Your task to perform on an android device: Search for logitech g pro on amazon.com, select the first entry, and add it to the cart. Image 0: 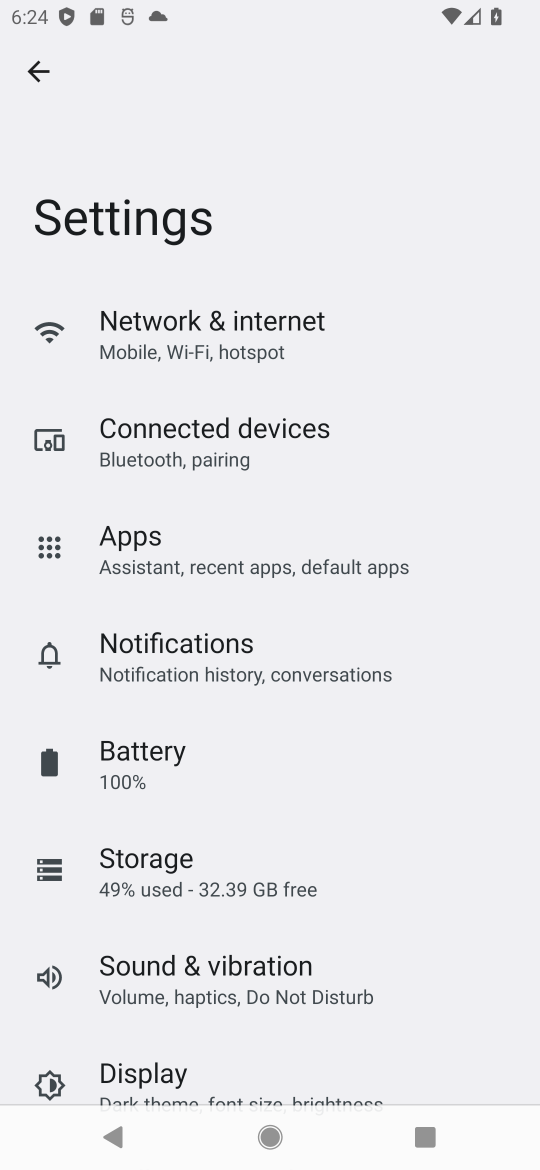
Step 0: press home button
Your task to perform on an android device: Search for logitech g pro on amazon.com, select the first entry, and add it to the cart. Image 1: 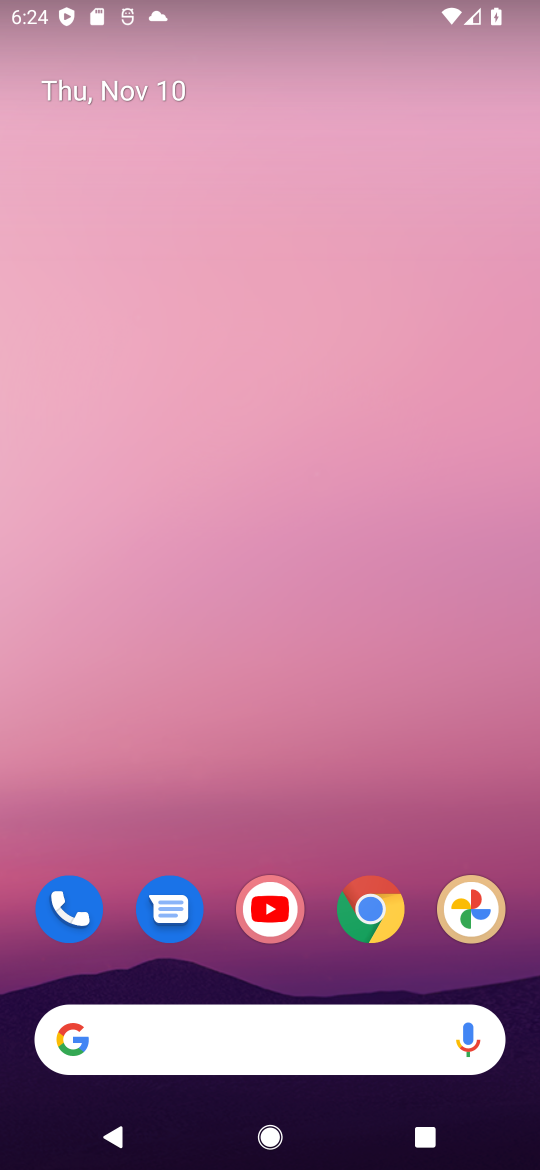
Step 1: drag from (228, 985) to (267, 297)
Your task to perform on an android device: Search for logitech g pro on amazon.com, select the first entry, and add it to the cart. Image 2: 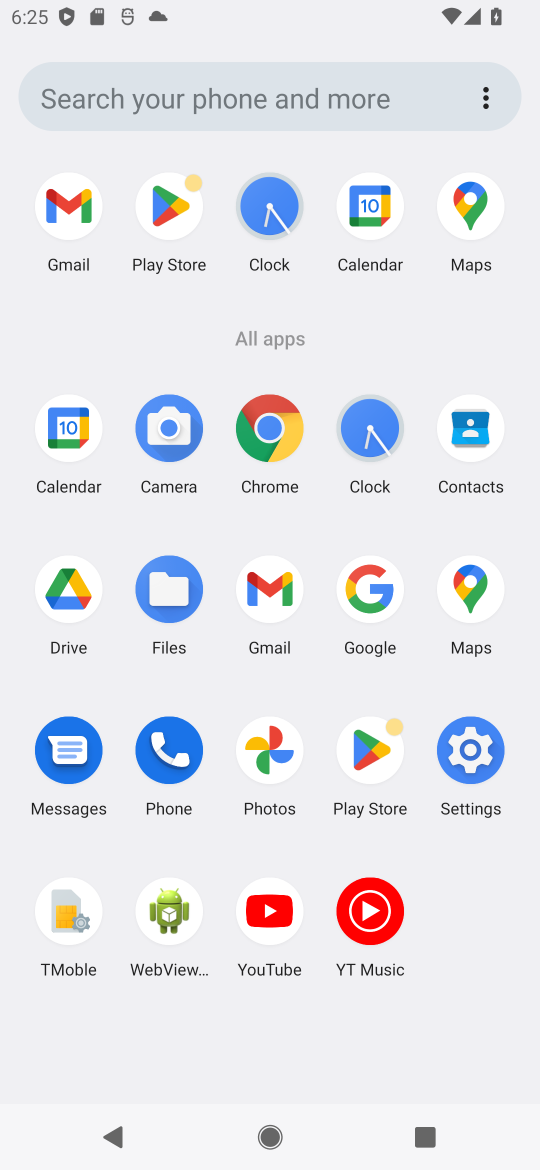
Step 2: click (370, 582)
Your task to perform on an android device: Search for logitech g pro on amazon.com, select the first entry, and add it to the cart. Image 3: 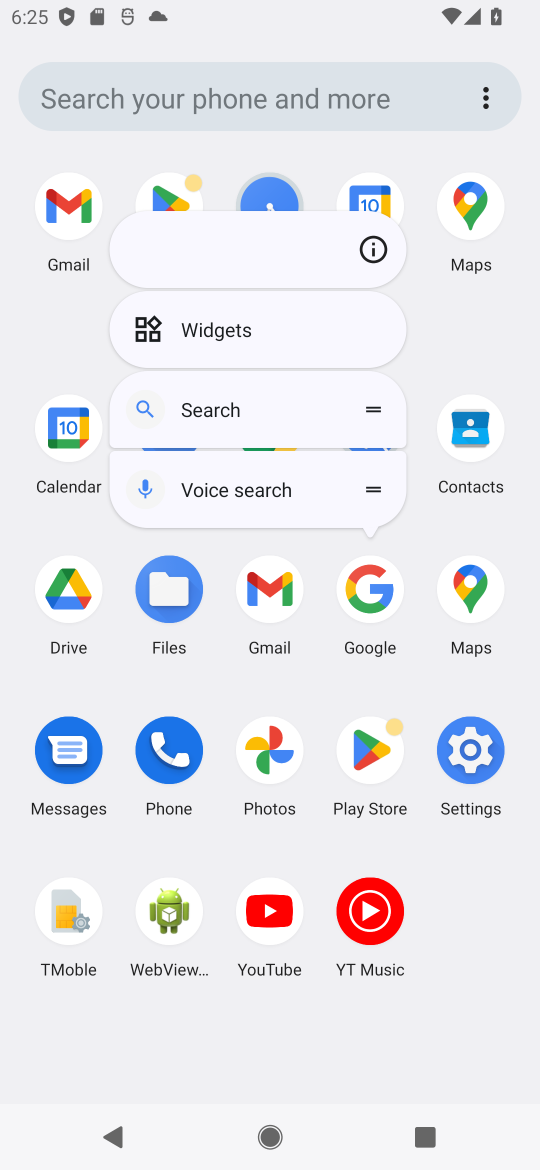
Step 3: click (370, 582)
Your task to perform on an android device: Search for logitech g pro on amazon.com, select the first entry, and add it to the cart. Image 4: 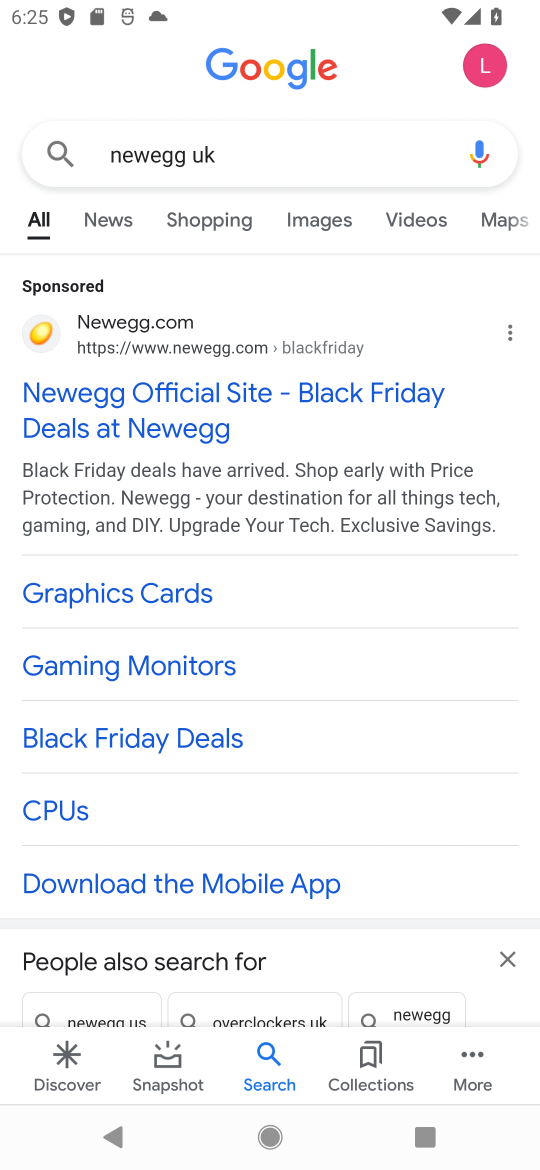
Step 4: click (47, 327)
Your task to perform on an android device: Search for logitech g pro on amazon.com, select the first entry, and add it to the cart. Image 5: 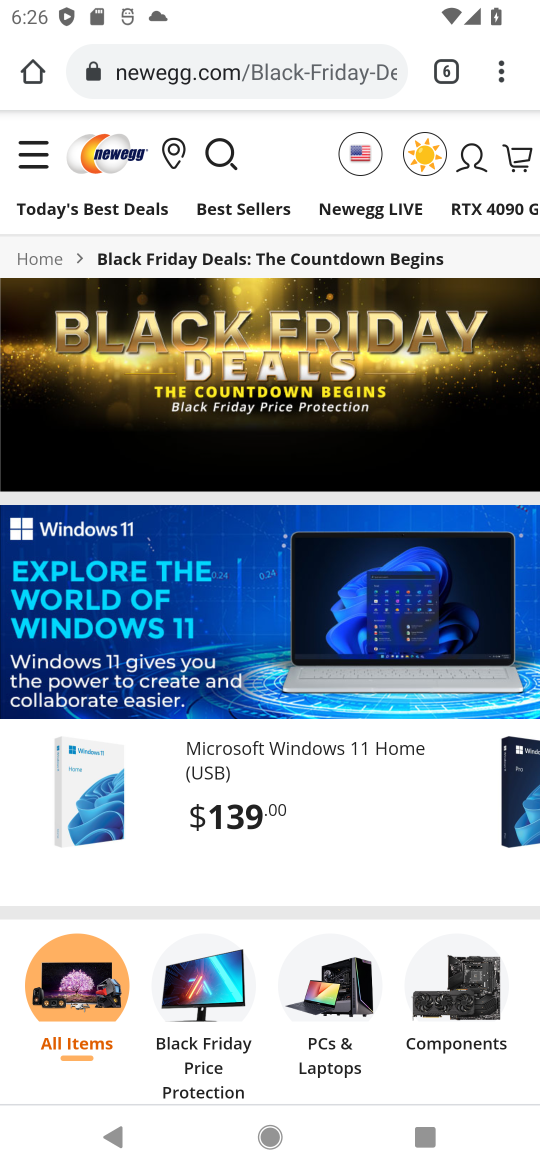
Step 5: click (224, 144)
Your task to perform on an android device: Search for logitech g pro on amazon.com, select the first entry, and add it to the cart. Image 6: 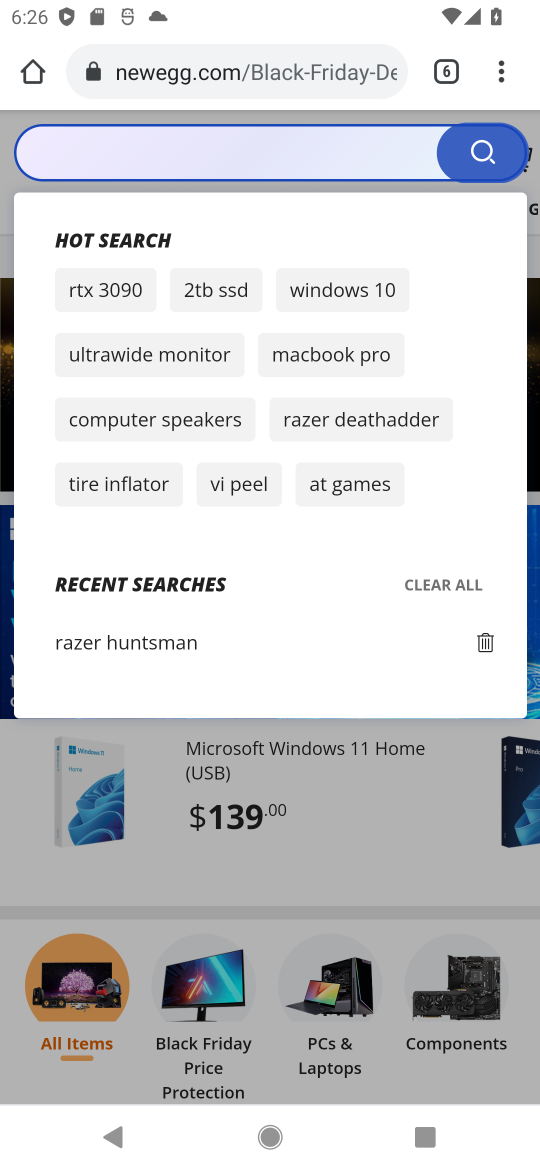
Step 6: click (370, 869)
Your task to perform on an android device: Search for logitech g pro on amazon.com, select the first entry, and add it to the cart. Image 7: 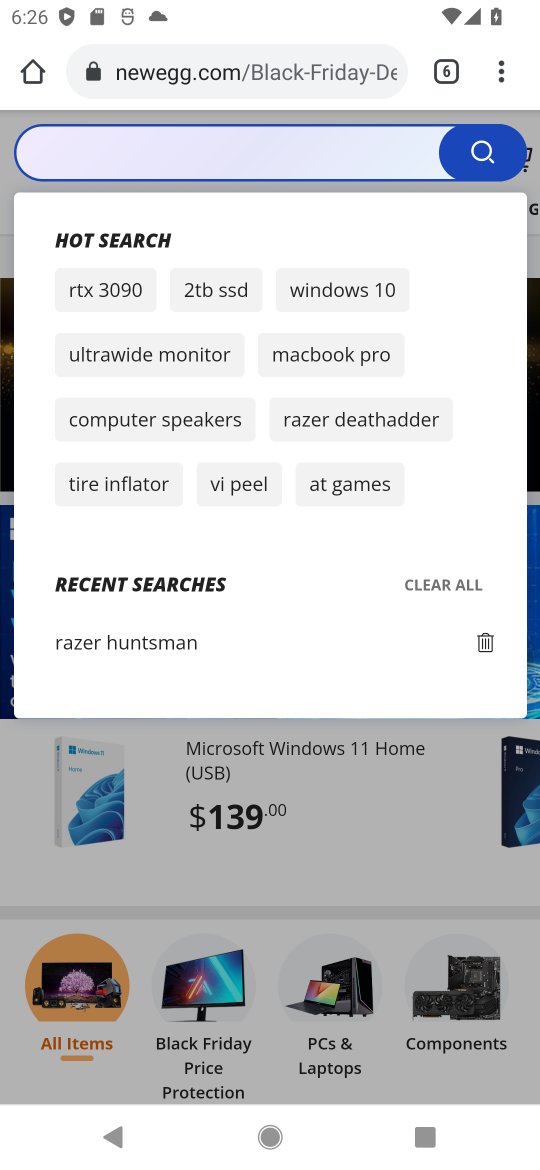
Step 7: press back button
Your task to perform on an android device: Search for logitech g pro on amazon.com, select the first entry, and add it to the cart. Image 8: 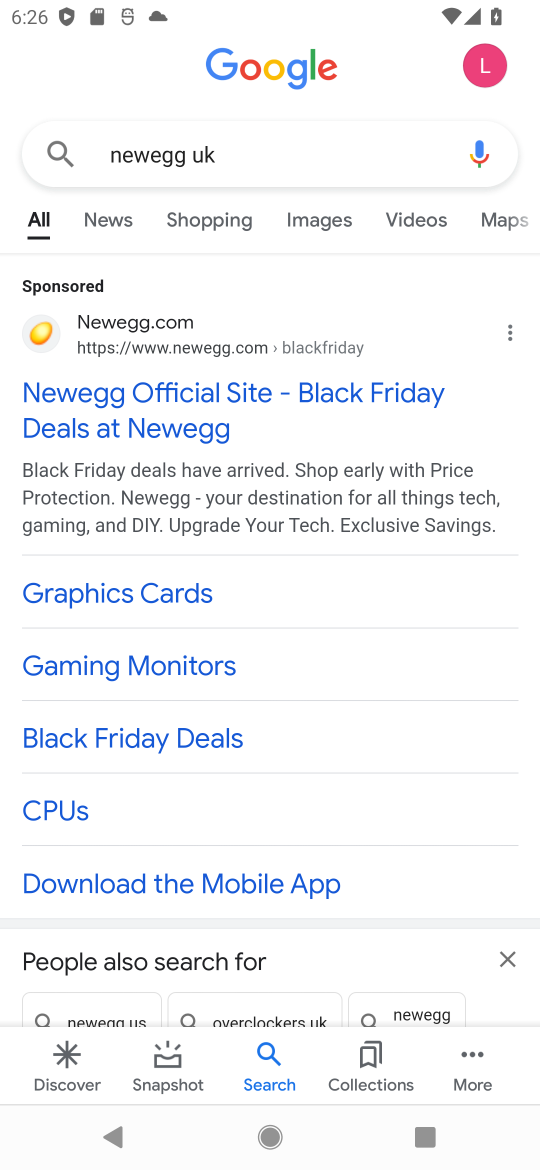
Step 8: click (281, 165)
Your task to perform on an android device: Search for logitech g pro on amazon.com, select the first entry, and add it to the cart. Image 9: 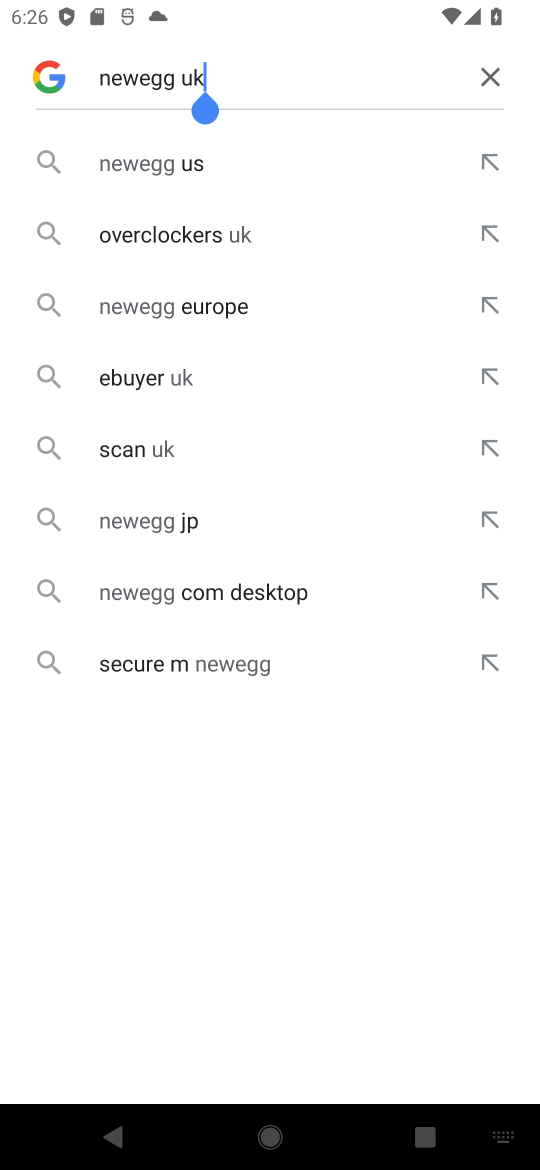
Step 9: click (486, 82)
Your task to perform on an android device: Search for logitech g pro on amazon.com, select the first entry, and add it to the cart. Image 10: 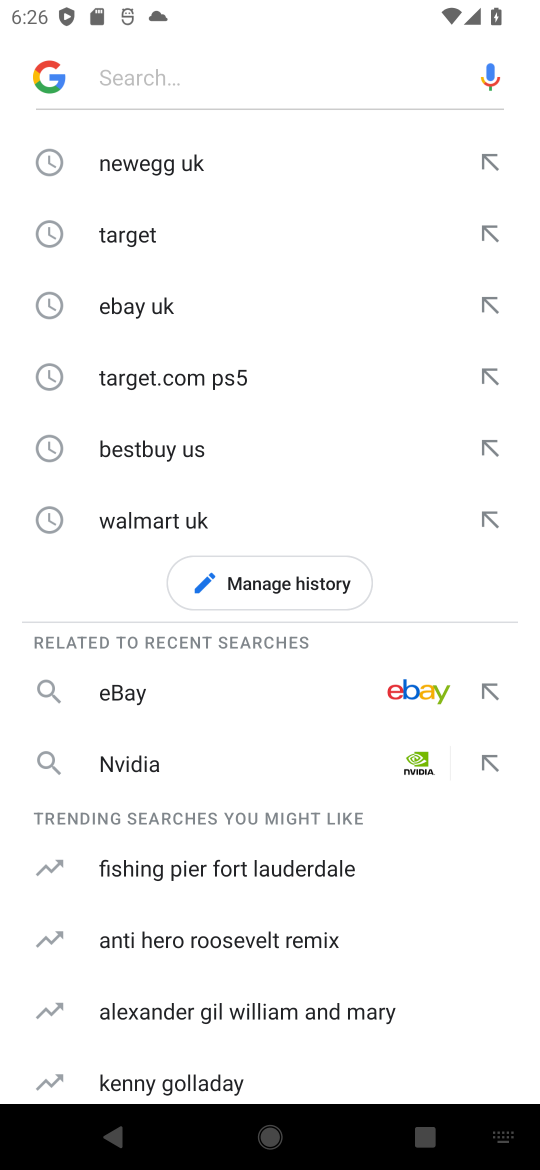
Step 10: click (191, 62)
Your task to perform on an android device: Search for logitech g pro on amazon.com, select the first entry, and add it to the cart. Image 11: 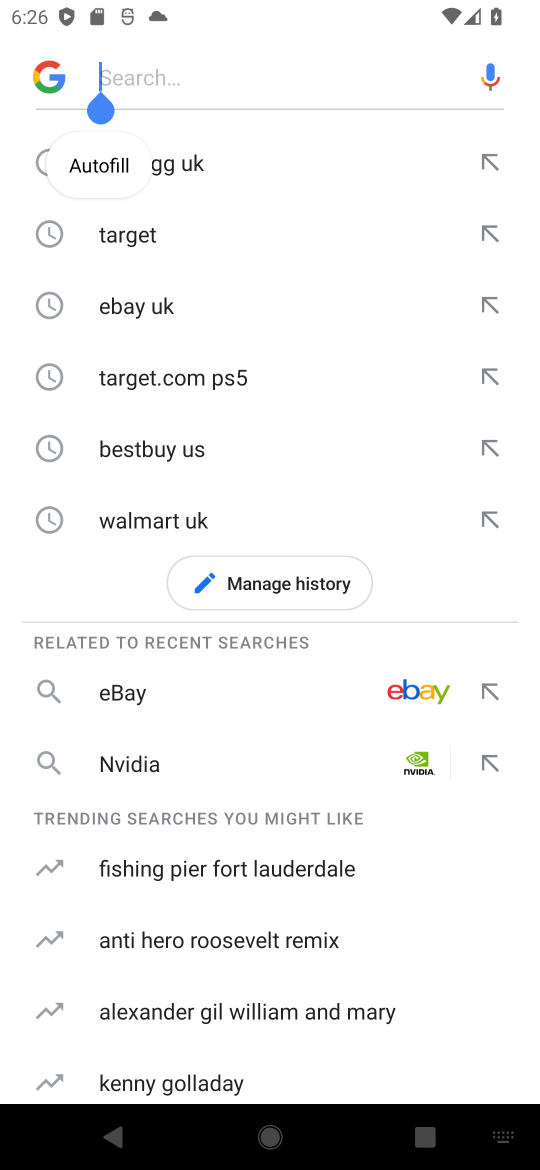
Step 11: click (188, 62)
Your task to perform on an android device: Search for logitech g pro on amazon.com, select the first entry, and add it to the cart. Image 12: 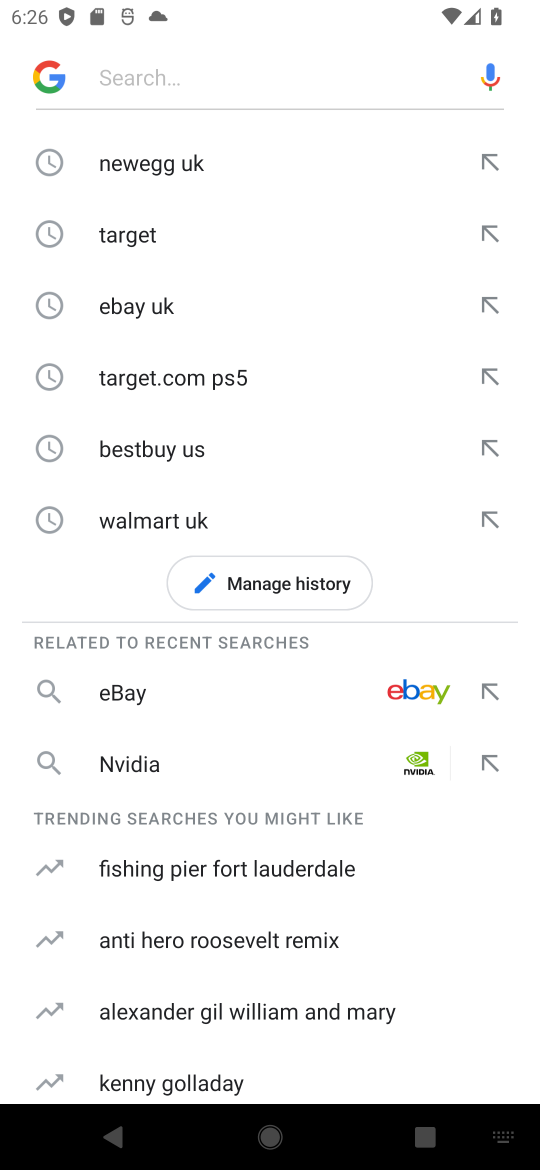
Step 12: type "amazon "
Your task to perform on an android device: Search for logitech g pro on amazon.com, select the first entry, and add it to the cart. Image 13: 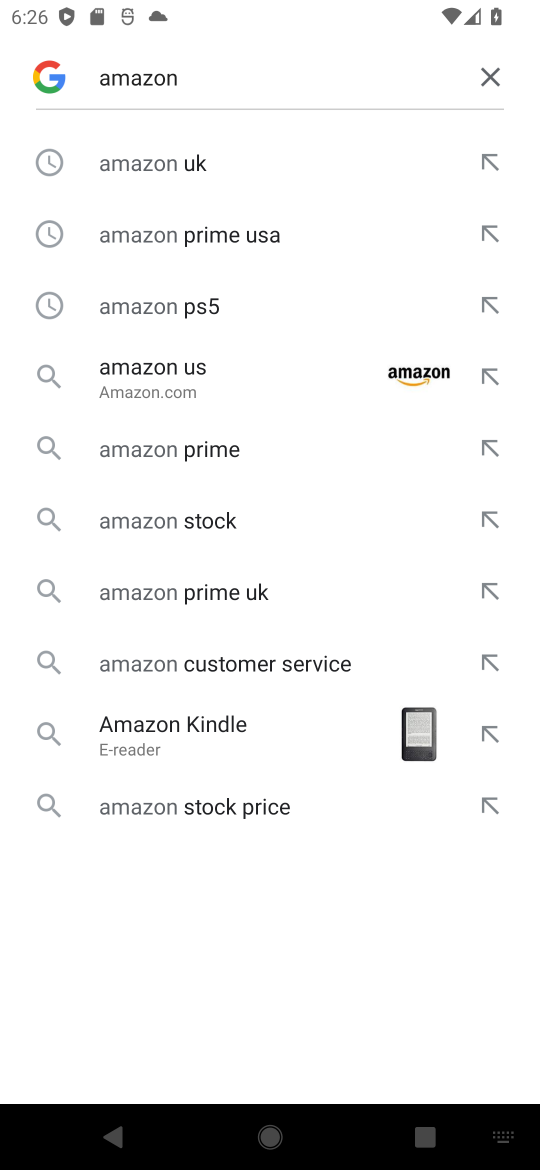
Step 13: click (170, 148)
Your task to perform on an android device: Search for logitech g pro on amazon.com, select the first entry, and add it to the cart. Image 14: 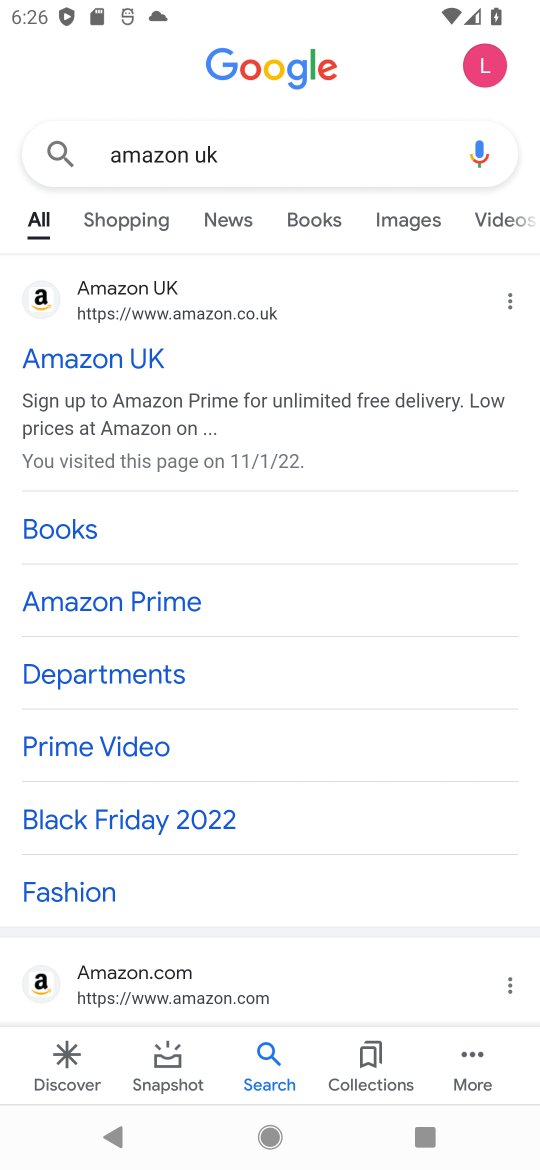
Step 14: click (41, 290)
Your task to perform on an android device: Search for logitech g pro on amazon.com, select the first entry, and add it to the cart. Image 15: 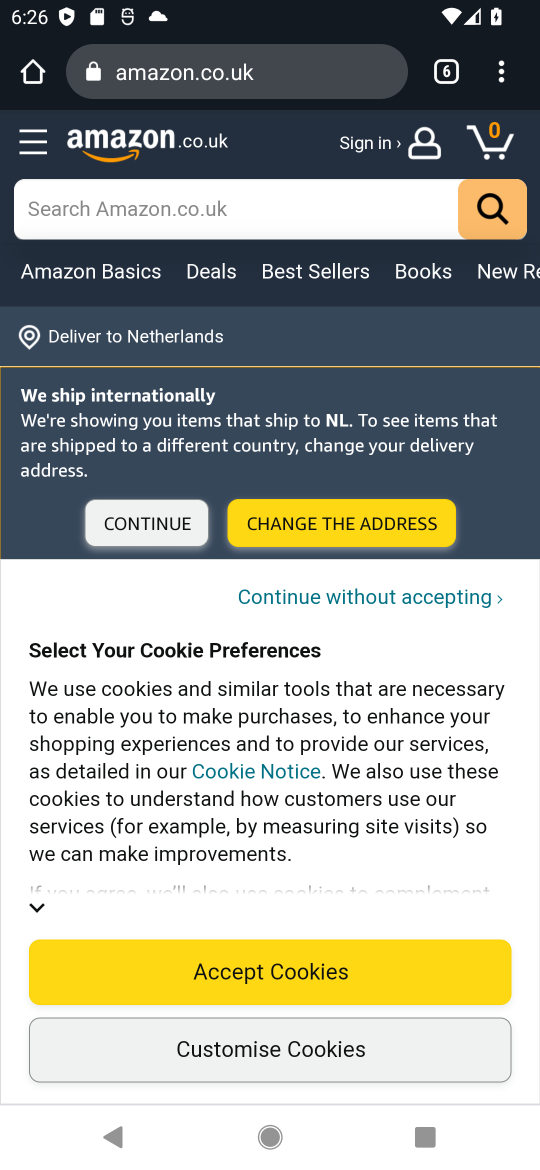
Step 15: click (271, 973)
Your task to perform on an android device: Search for logitech g pro on amazon.com, select the first entry, and add it to the cart. Image 16: 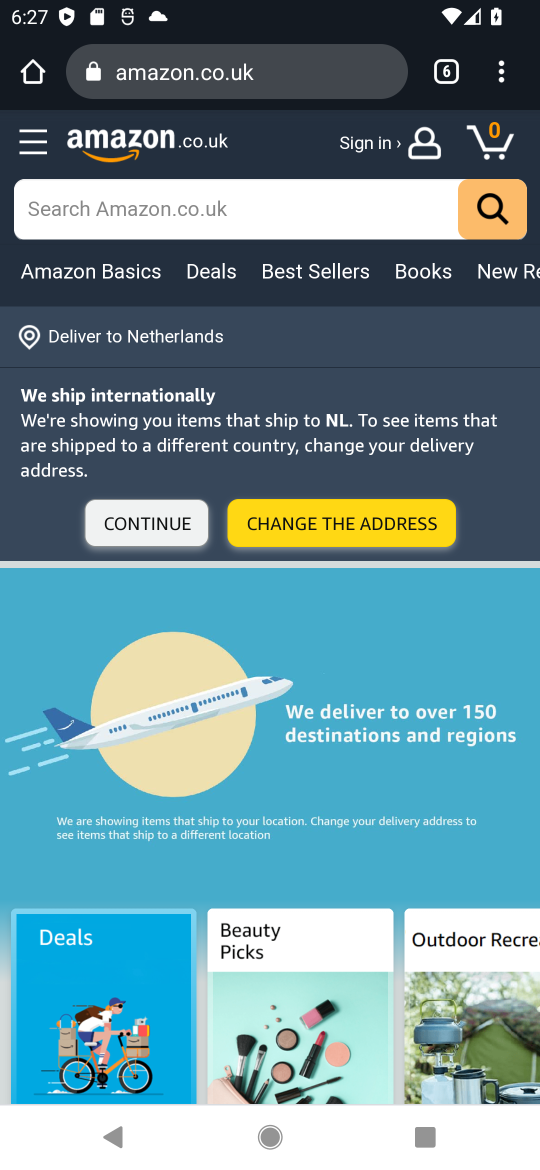
Step 16: click (249, 202)
Your task to perform on an android device: Search for logitech g pro on amazon.com, select the first entry, and add it to the cart. Image 17: 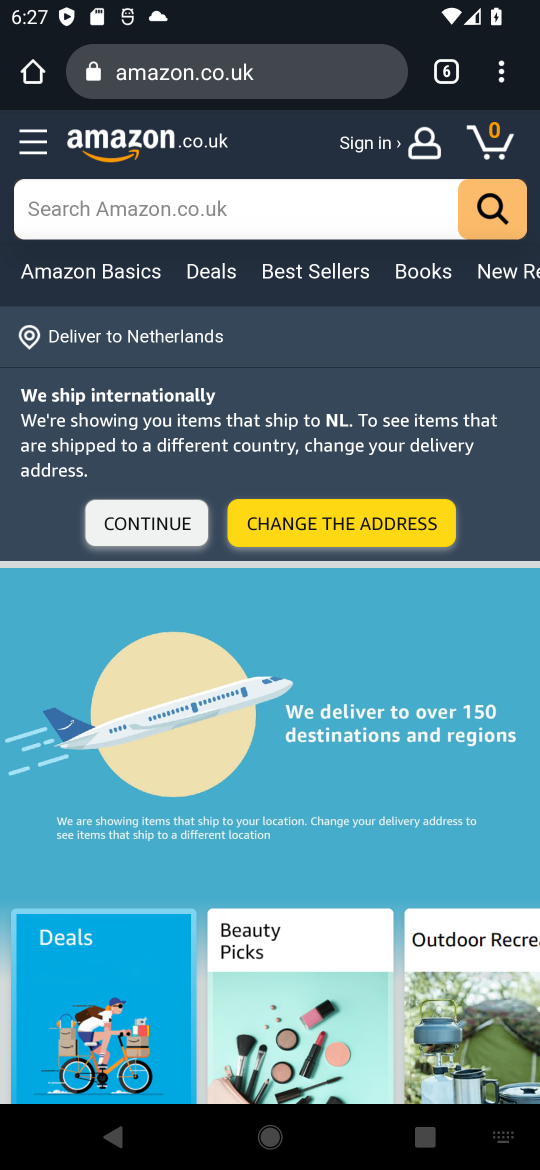
Step 17: type " logitech g pro on "
Your task to perform on an android device: Search for logitech g pro on amazon.com, select the first entry, and add it to the cart. Image 18: 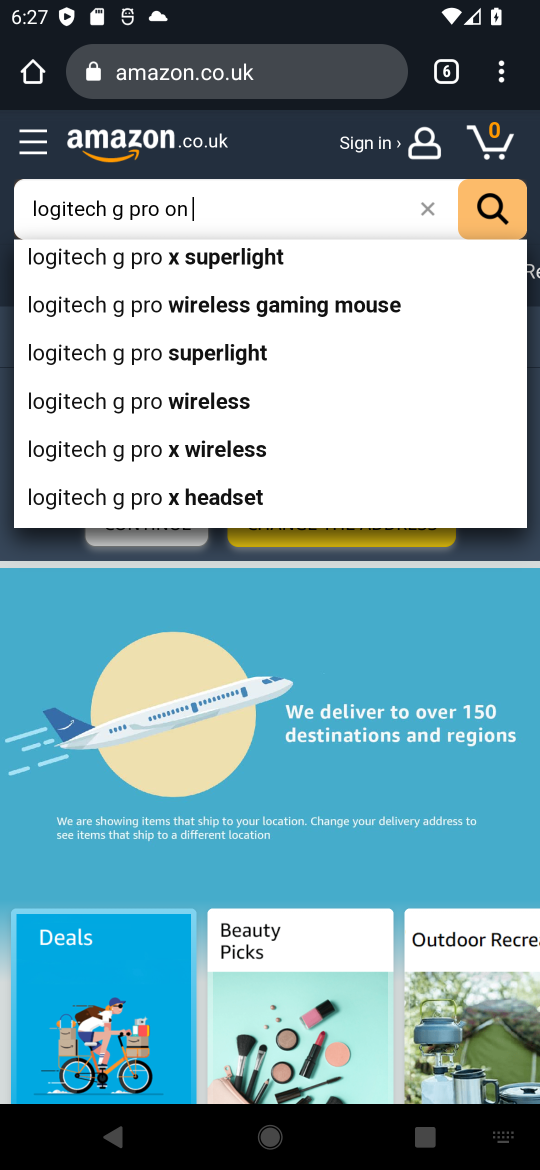
Step 18: click (172, 259)
Your task to perform on an android device: Search for logitech g pro on amazon.com, select the first entry, and add it to the cart. Image 19: 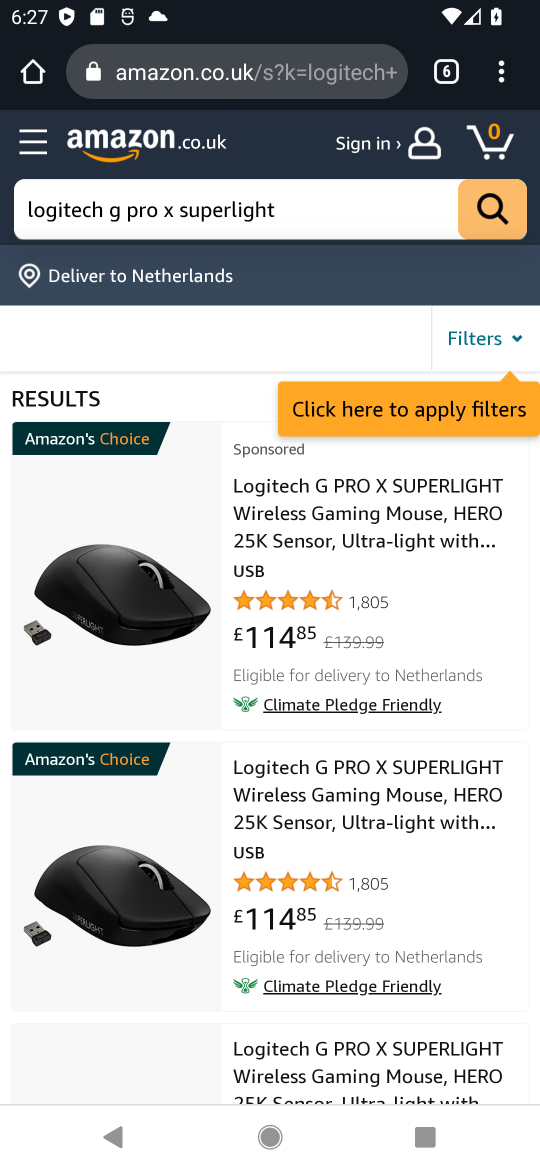
Step 19: click (280, 493)
Your task to perform on an android device: Search for logitech g pro on amazon.com, select the first entry, and add it to the cart. Image 20: 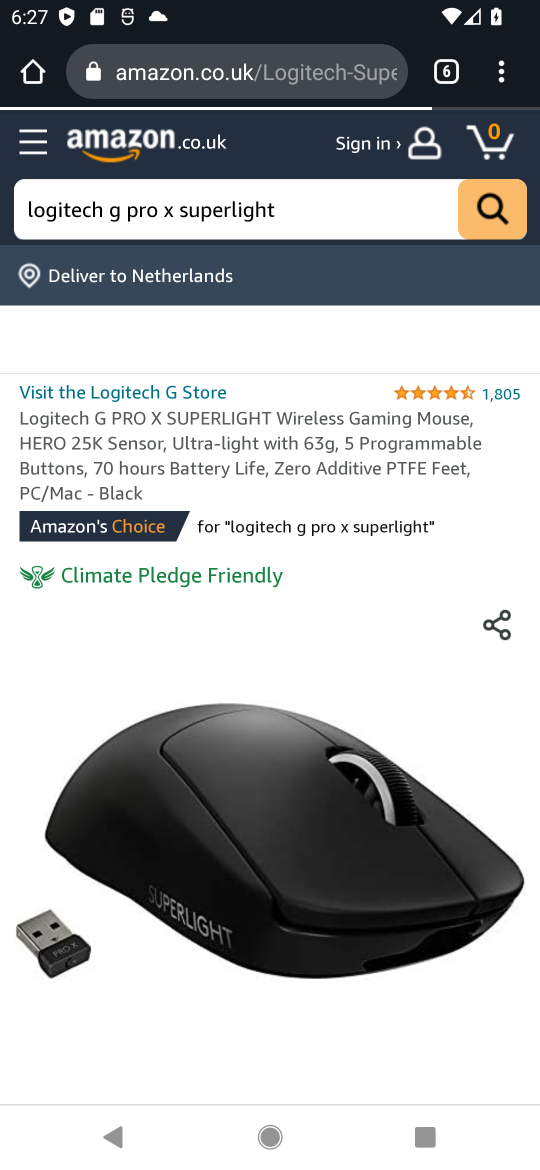
Step 20: drag from (288, 1051) to (304, 546)
Your task to perform on an android device: Search for logitech g pro on amazon.com, select the first entry, and add it to the cart. Image 21: 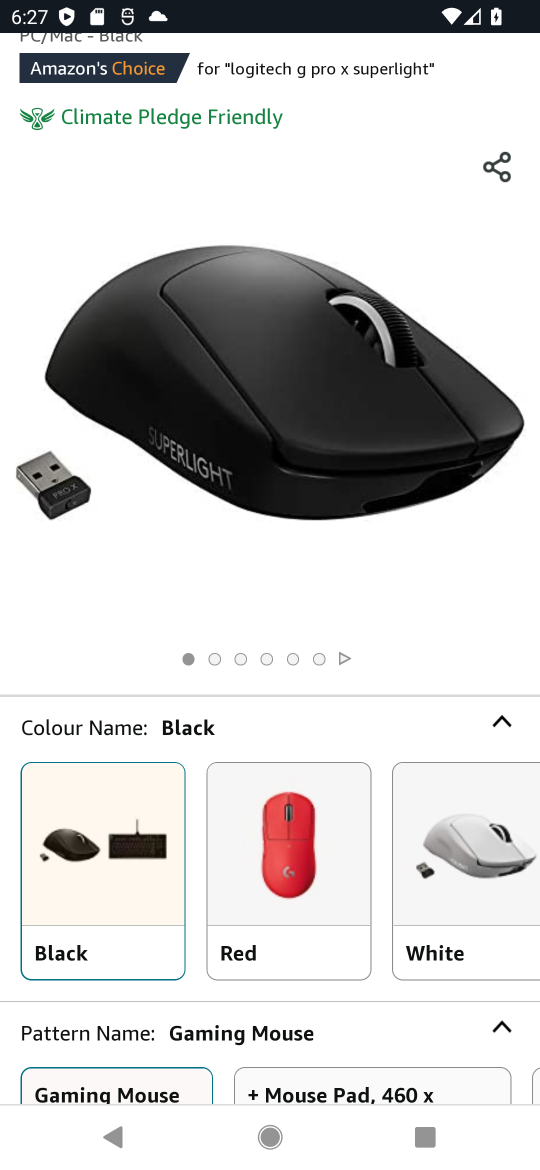
Step 21: drag from (252, 1050) to (268, 497)
Your task to perform on an android device: Search for logitech g pro on amazon.com, select the first entry, and add it to the cart. Image 22: 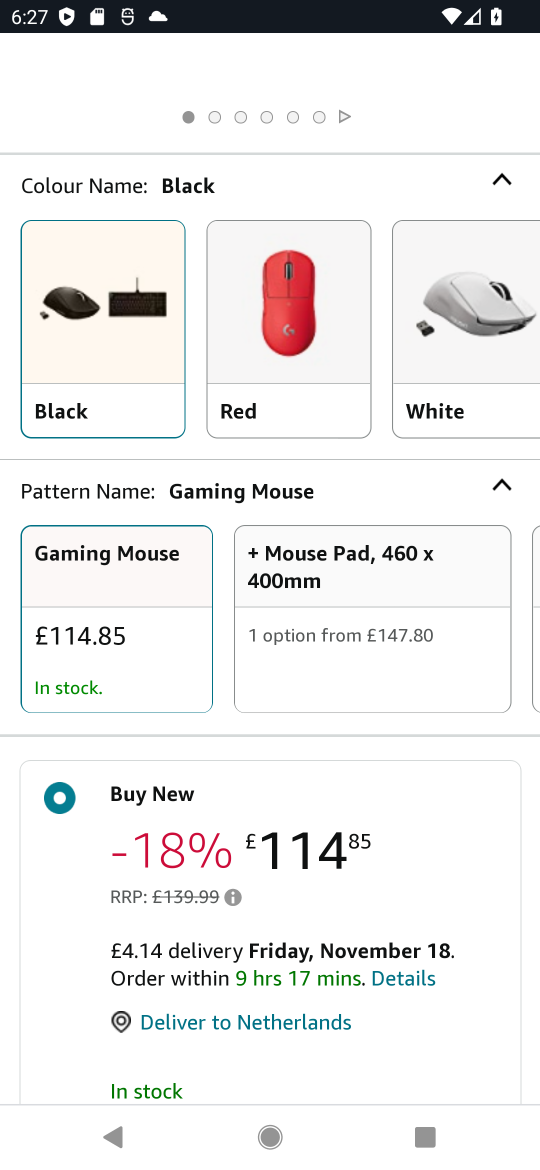
Step 22: drag from (197, 1043) to (259, 471)
Your task to perform on an android device: Search for logitech g pro on amazon.com, select the first entry, and add it to the cart. Image 23: 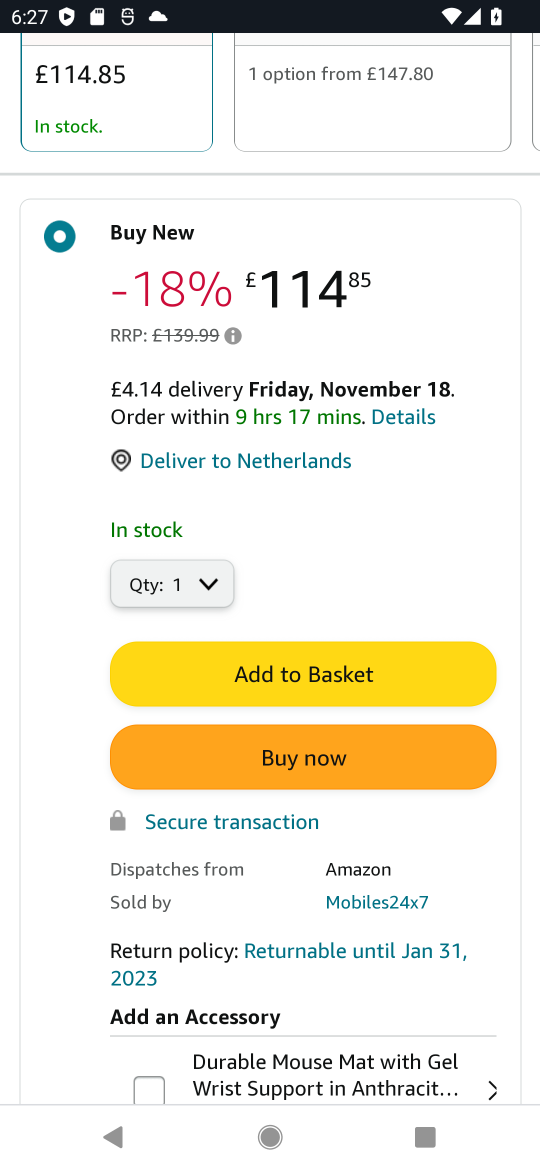
Step 23: click (277, 659)
Your task to perform on an android device: Search for logitech g pro on amazon.com, select the first entry, and add it to the cart. Image 24: 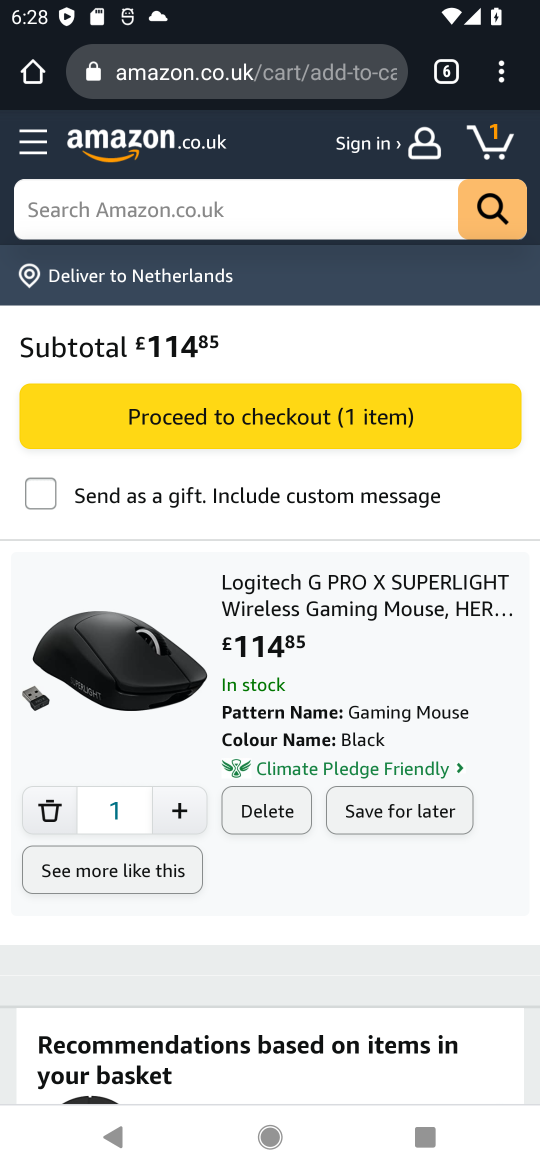
Step 24: task complete